Your task to perform on an android device: Open Youtube and go to "Your channel" Image 0: 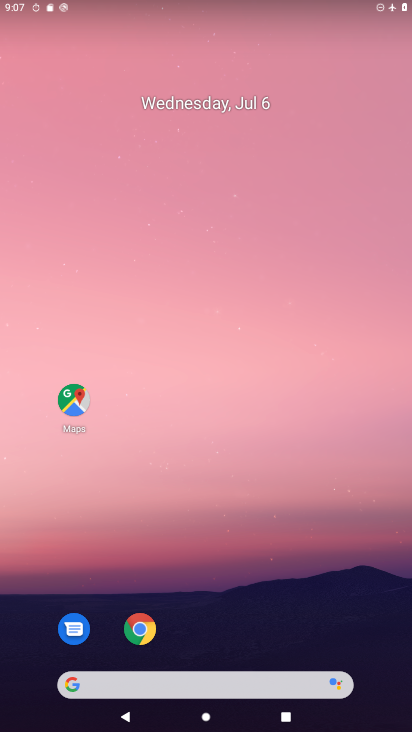
Step 0: drag from (241, 722) to (241, 141)
Your task to perform on an android device: Open Youtube and go to "Your channel" Image 1: 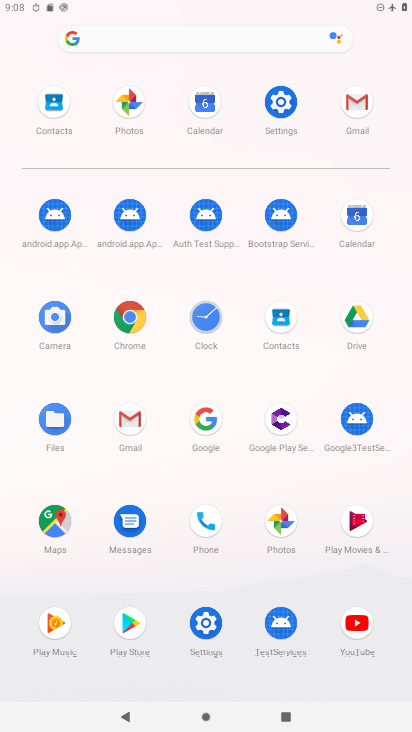
Step 1: click (352, 622)
Your task to perform on an android device: Open Youtube and go to "Your channel" Image 2: 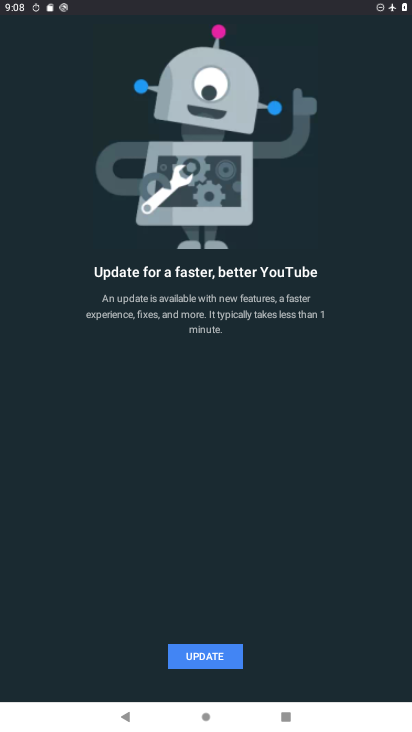
Step 2: task complete